Your task to perform on an android device: Open the calendar app, open the side menu, and click the "Day" option Image 0: 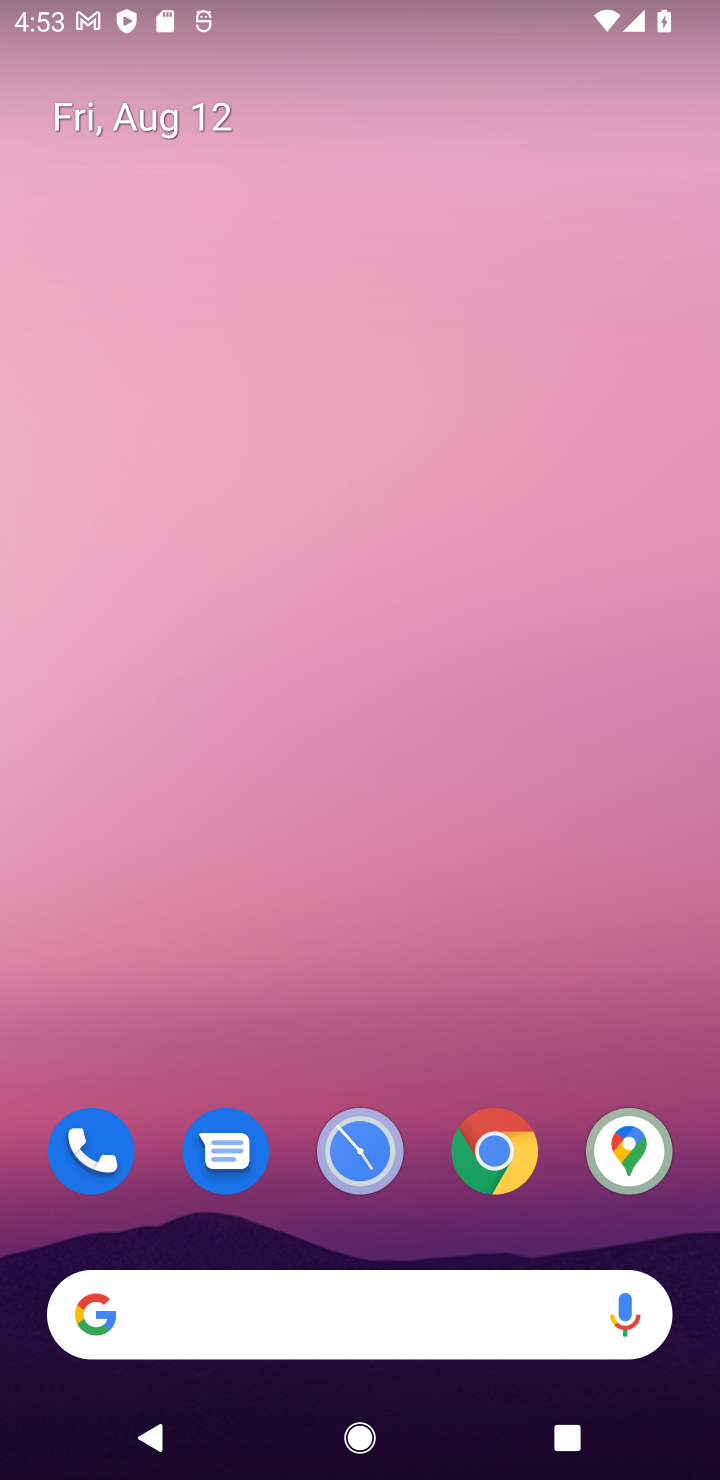
Step 0: drag from (402, 1023) to (602, 76)
Your task to perform on an android device: Open the calendar app, open the side menu, and click the "Day" option Image 1: 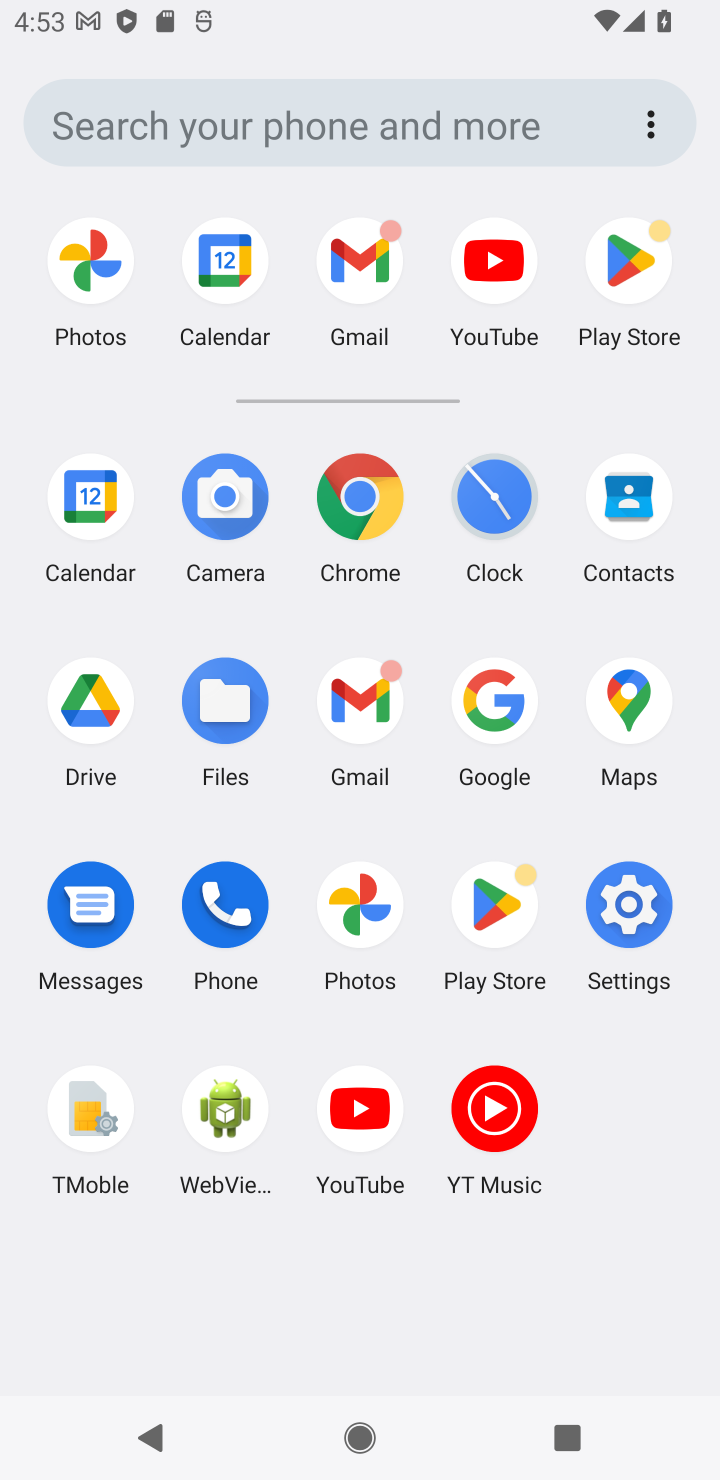
Step 1: click (230, 257)
Your task to perform on an android device: Open the calendar app, open the side menu, and click the "Day" option Image 2: 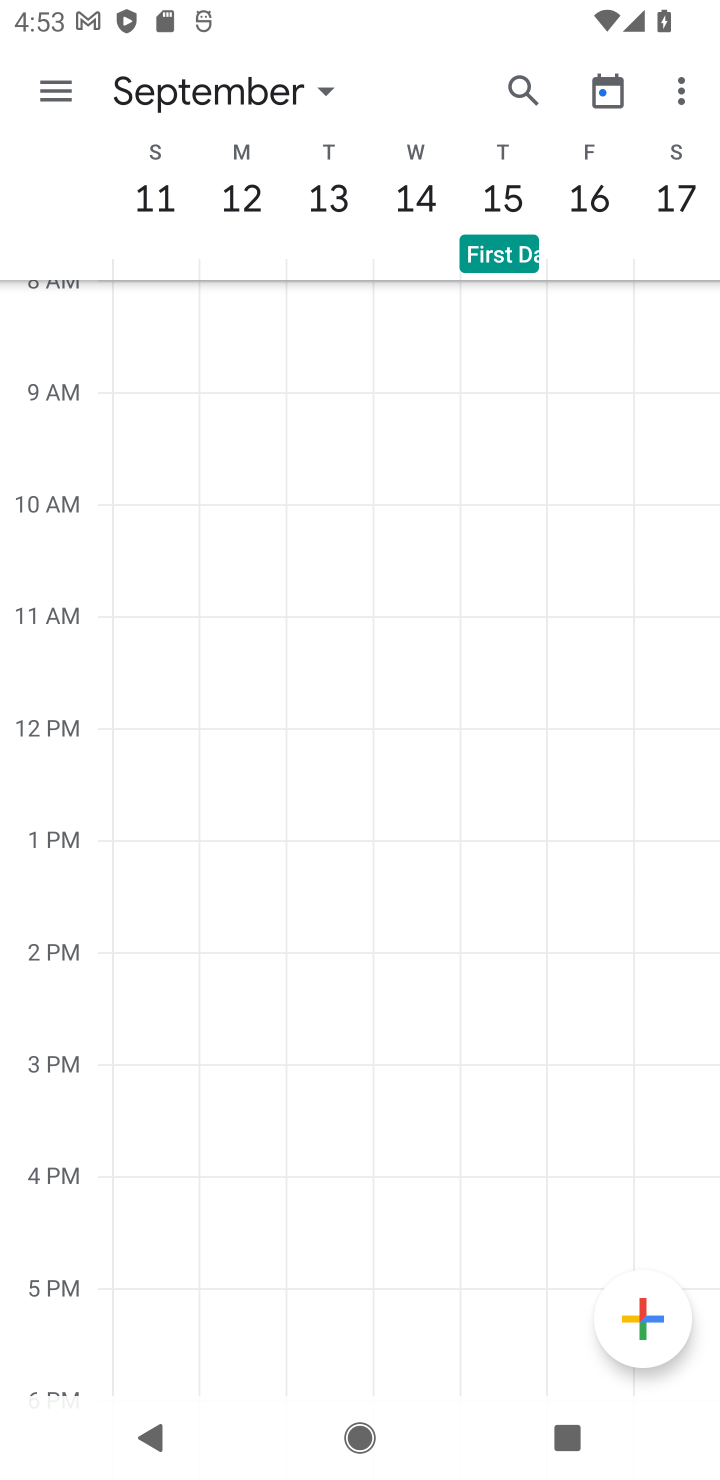
Step 2: click (71, 60)
Your task to perform on an android device: Open the calendar app, open the side menu, and click the "Day" option Image 3: 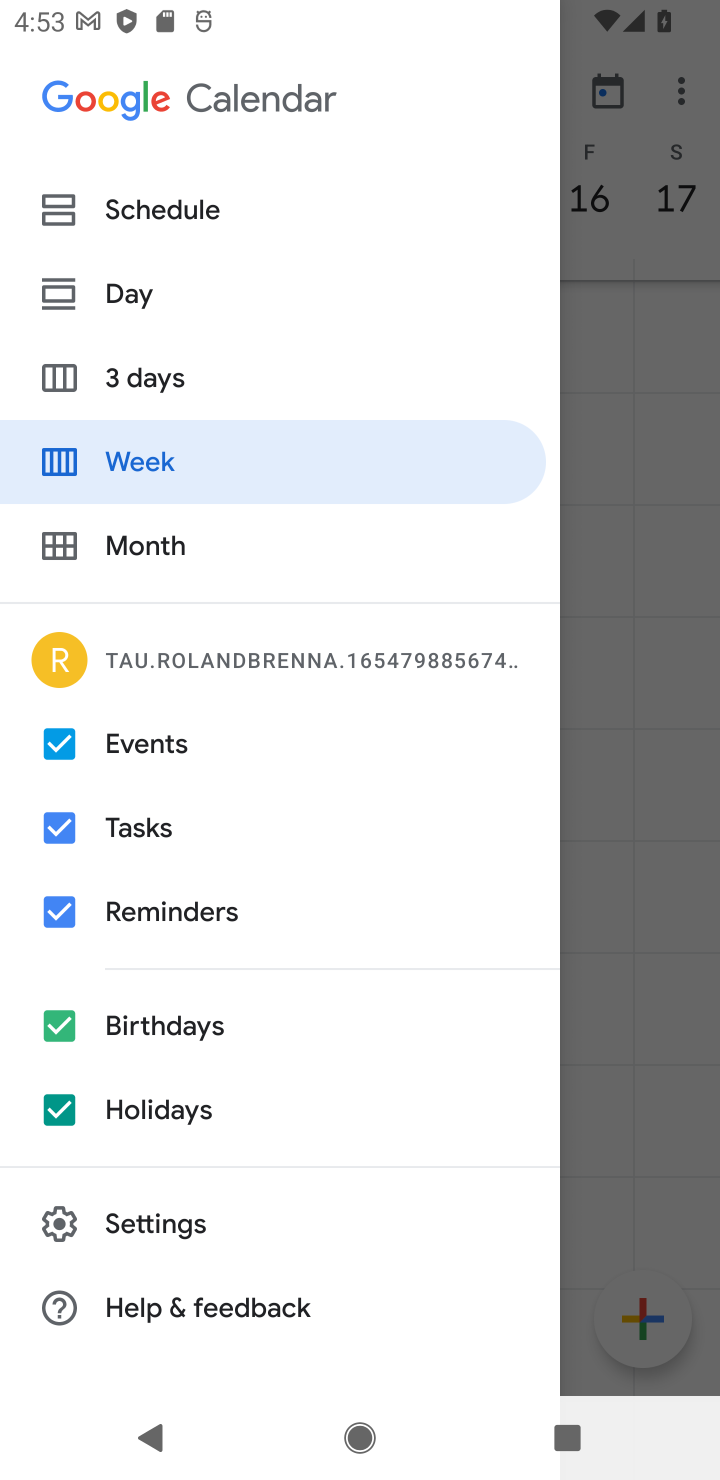
Step 3: click (191, 307)
Your task to perform on an android device: Open the calendar app, open the side menu, and click the "Day" option Image 4: 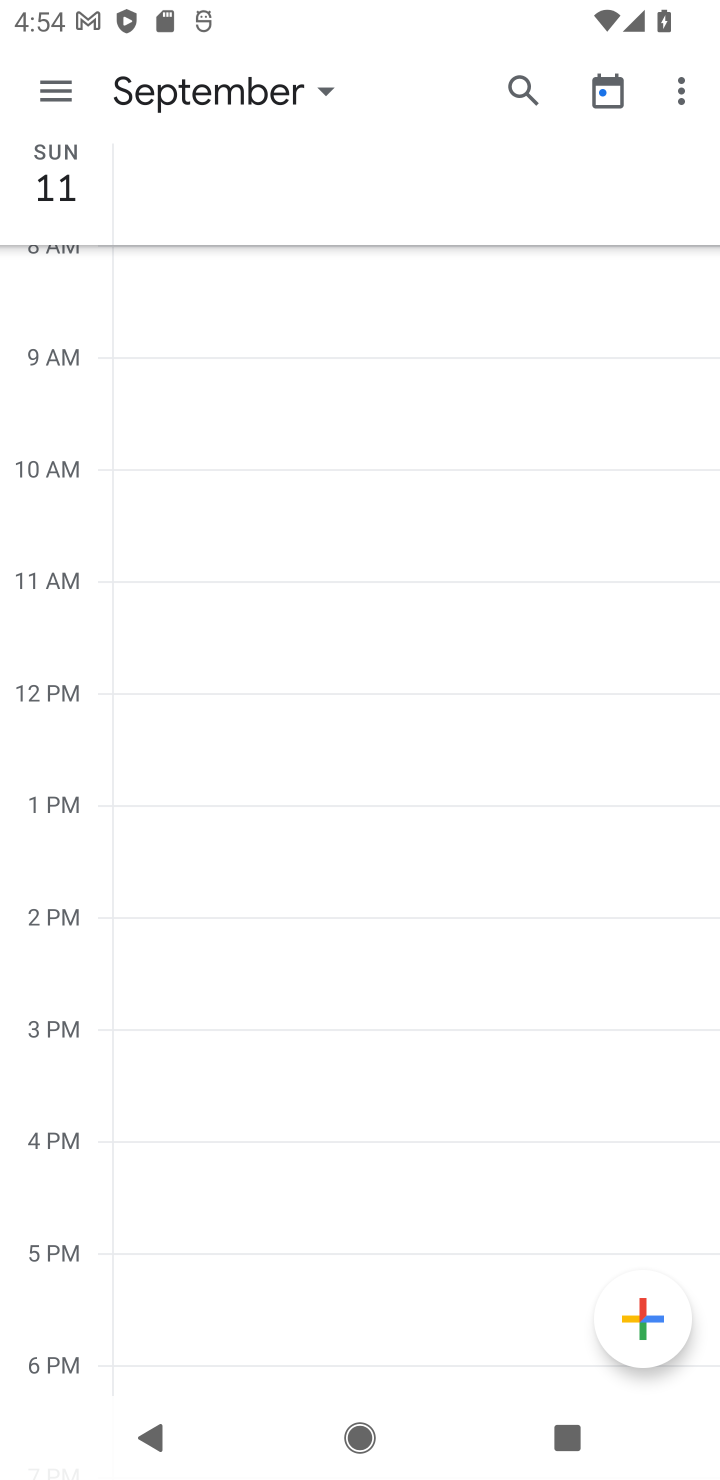
Step 4: task complete